Your task to perform on an android device: Search for Italian restaurants on Maps Image 0: 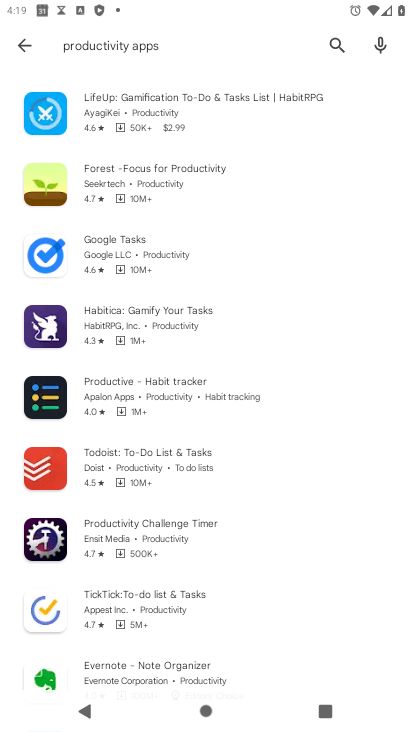
Step 0: press home button
Your task to perform on an android device: Search for Italian restaurants on Maps Image 1: 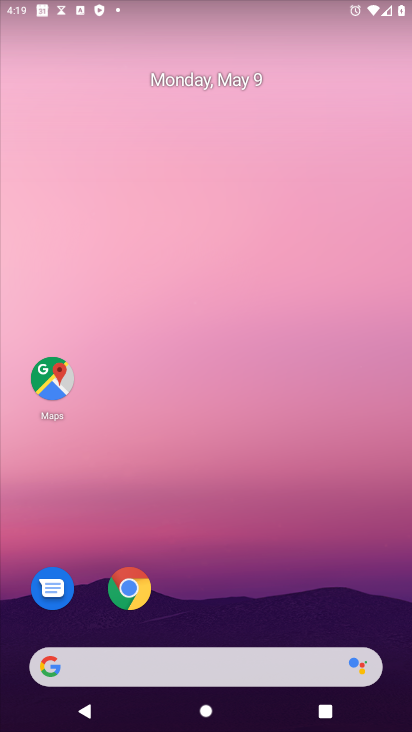
Step 1: click (54, 367)
Your task to perform on an android device: Search for Italian restaurants on Maps Image 2: 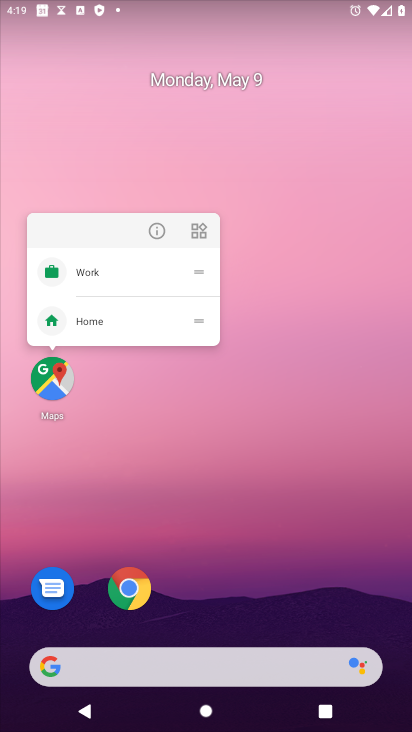
Step 2: click (57, 386)
Your task to perform on an android device: Search for Italian restaurants on Maps Image 3: 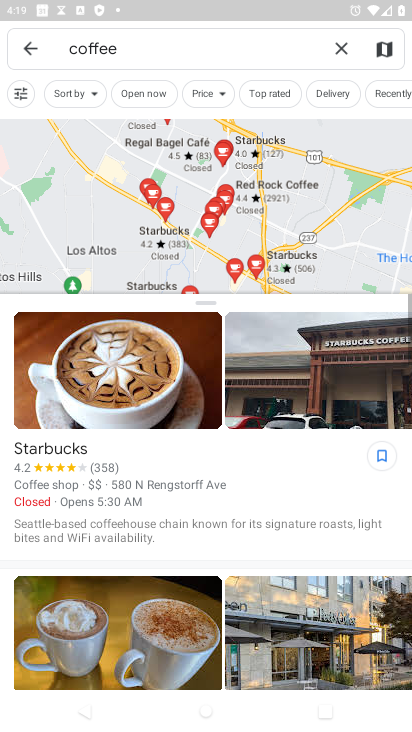
Step 3: click (158, 50)
Your task to perform on an android device: Search for Italian restaurants on Maps Image 4: 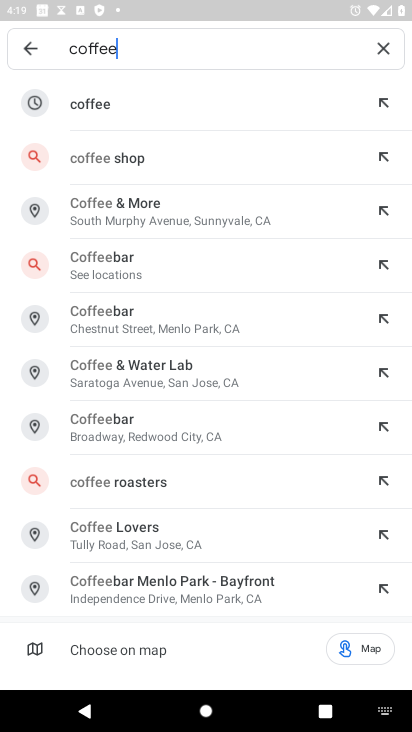
Step 4: click (389, 40)
Your task to perform on an android device: Search for Italian restaurants on Maps Image 5: 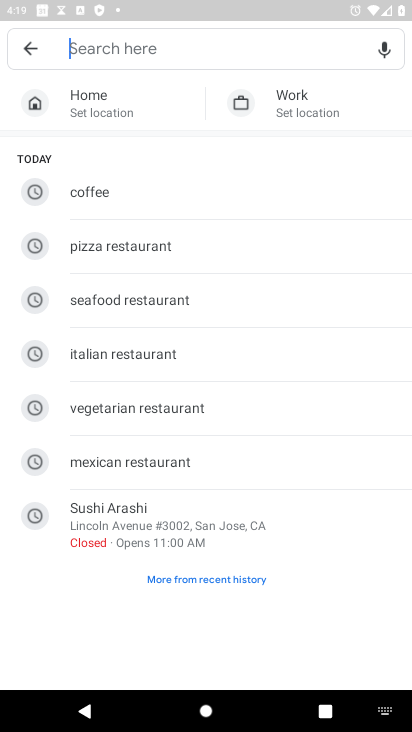
Step 5: click (155, 354)
Your task to perform on an android device: Search for Italian restaurants on Maps Image 6: 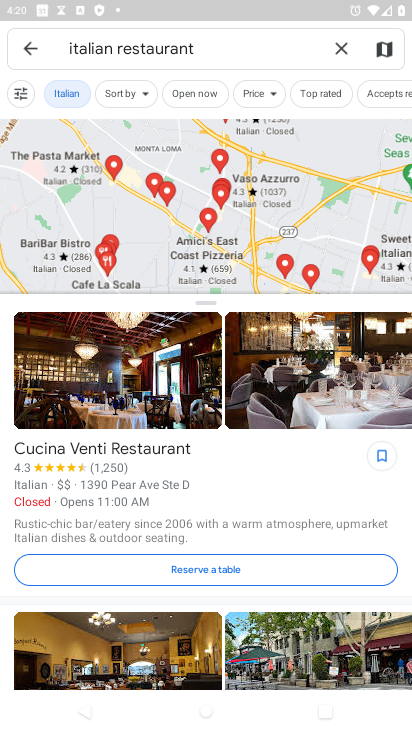
Step 6: task complete